Your task to perform on an android device: Clear the cart on target.com. Image 0: 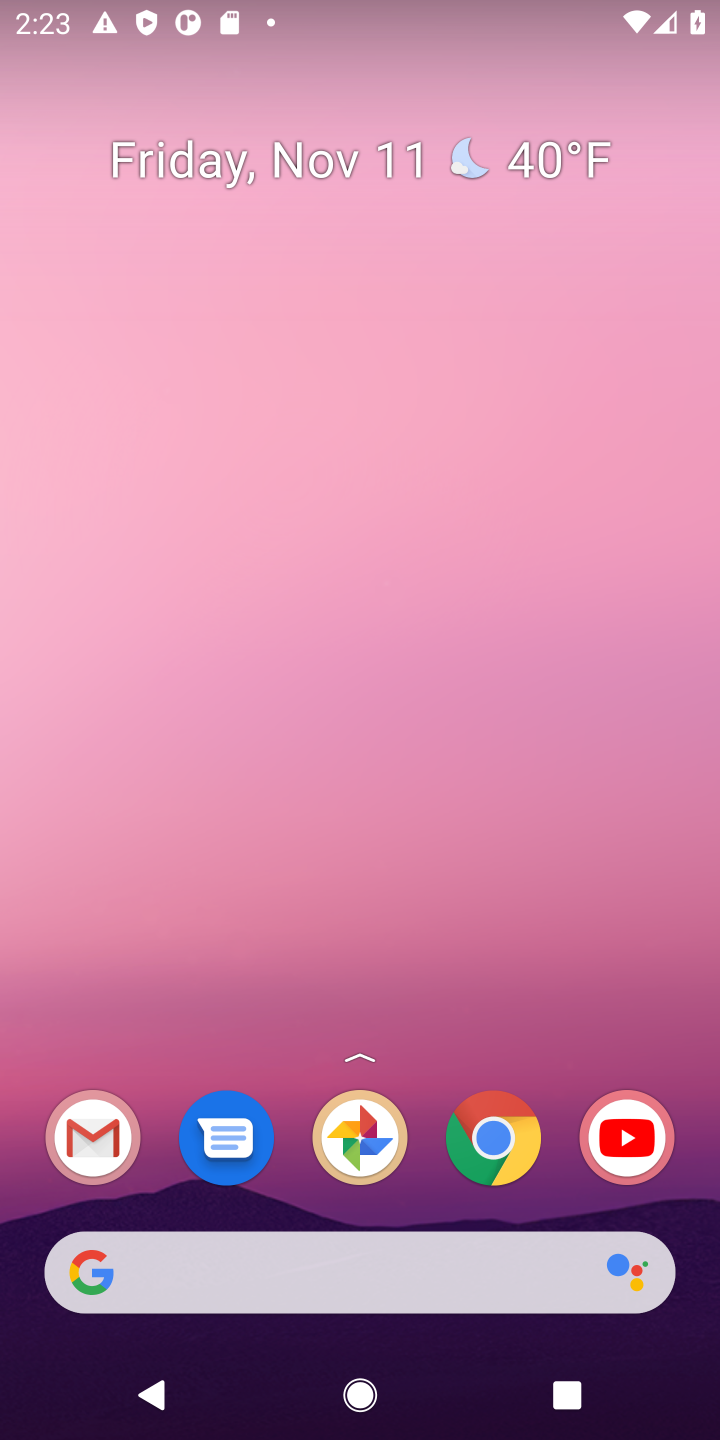
Step 0: click (487, 1150)
Your task to perform on an android device: Clear the cart on target.com. Image 1: 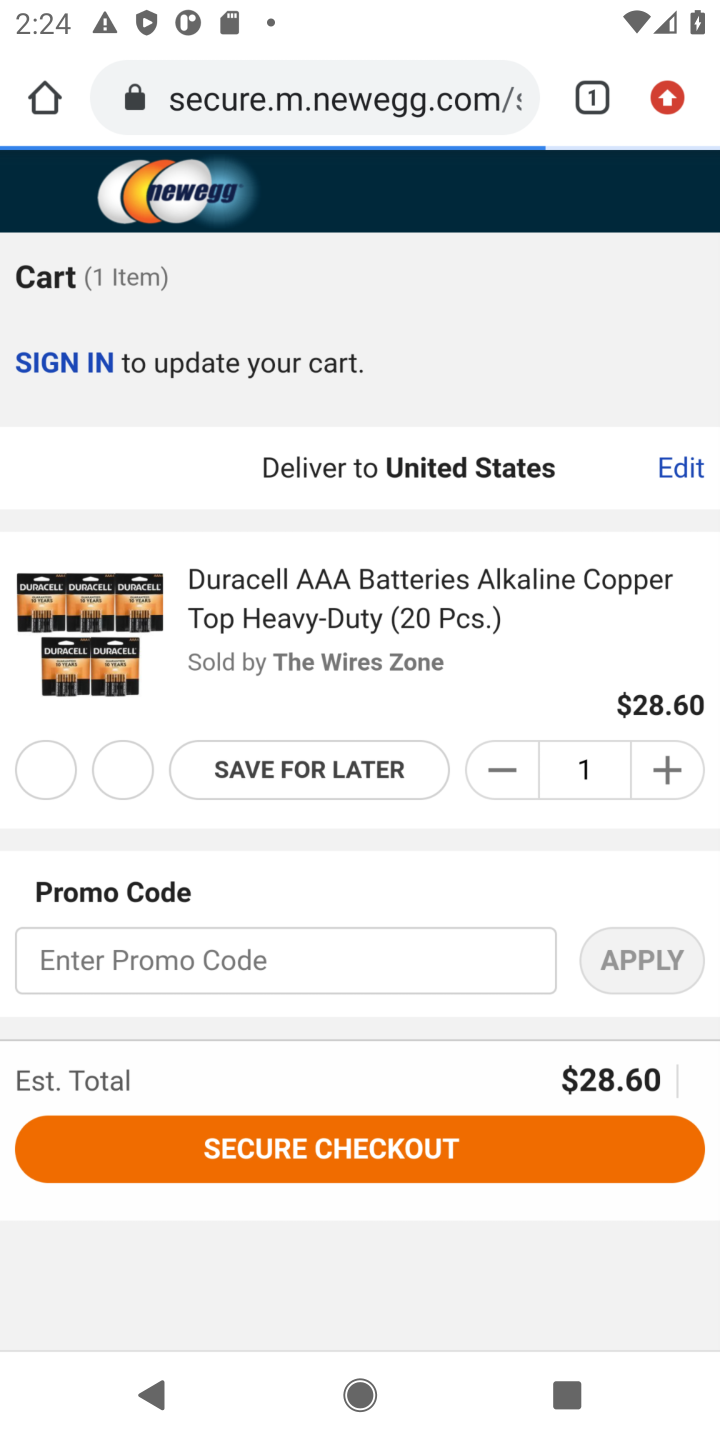
Step 1: click (372, 104)
Your task to perform on an android device: Clear the cart on target.com. Image 2: 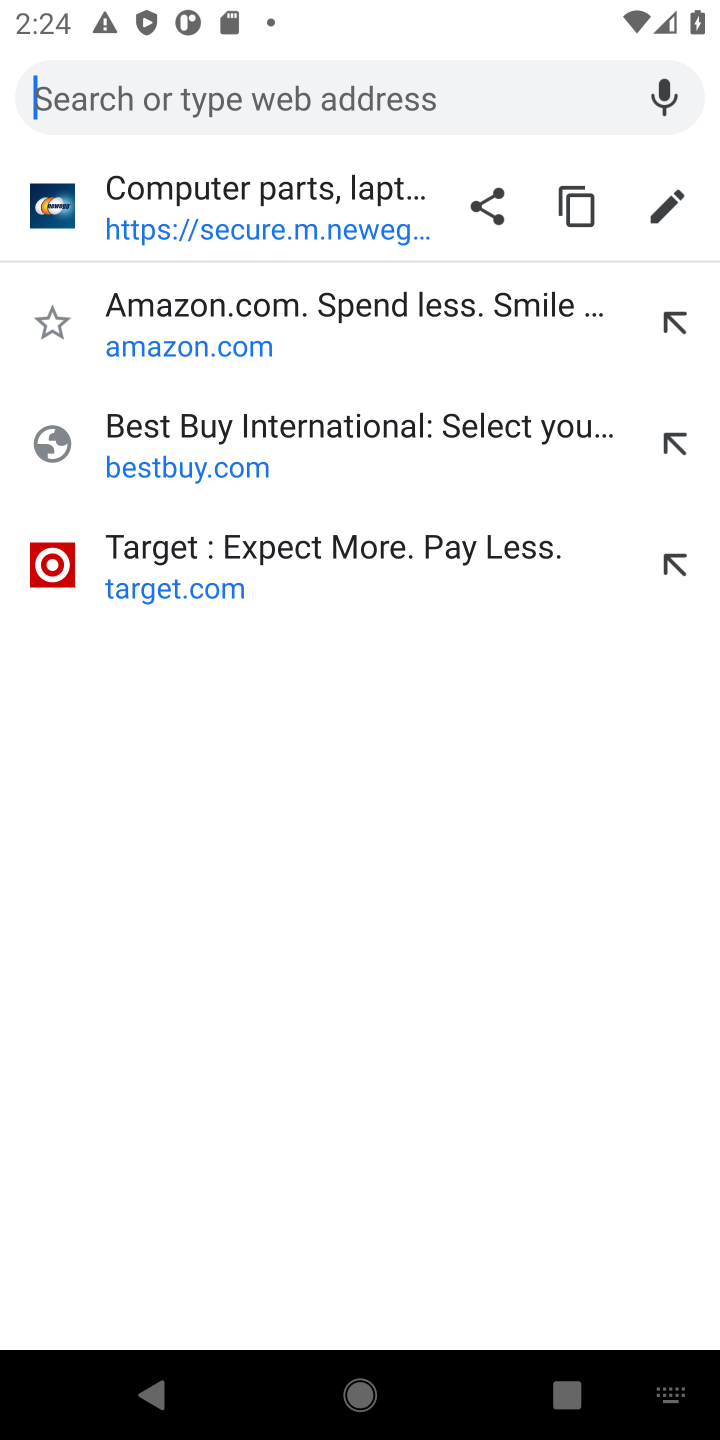
Step 2: click (343, 549)
Your task to perform on an android device: Clear the cart on target.com. Image 3: 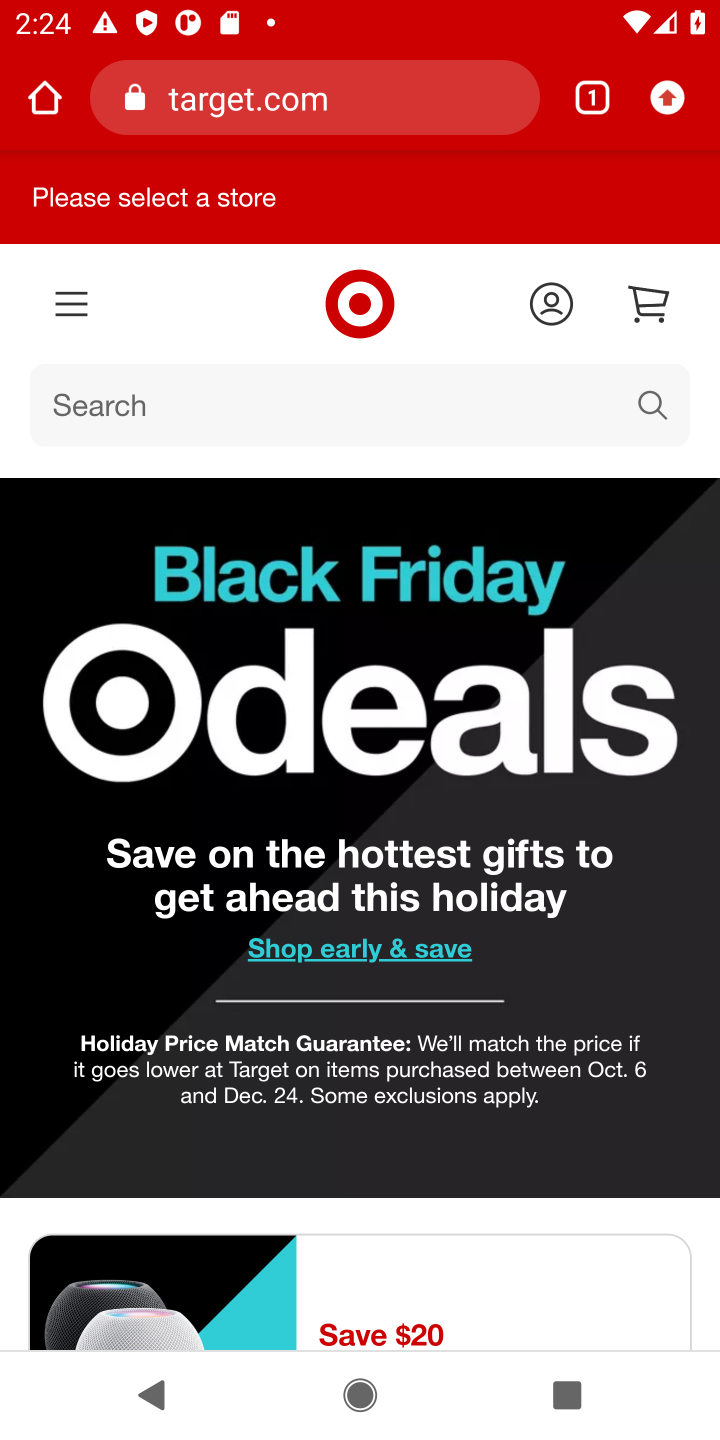
Step 3: click (636, 304)
Your task to perform on an android device: Clear the cart on target.com. Image 4: 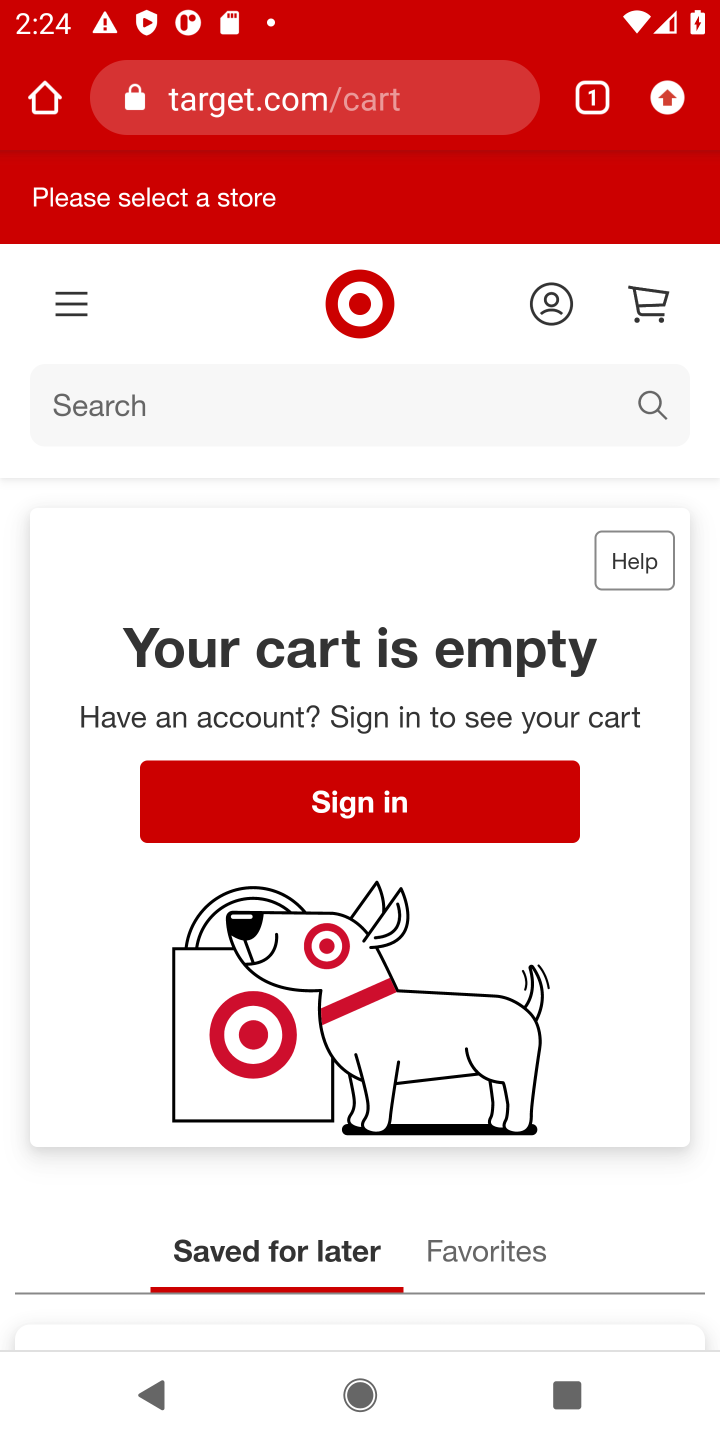
Step 4: task complete